Your task to perform on an android device: Open ESPN.com Image 0: 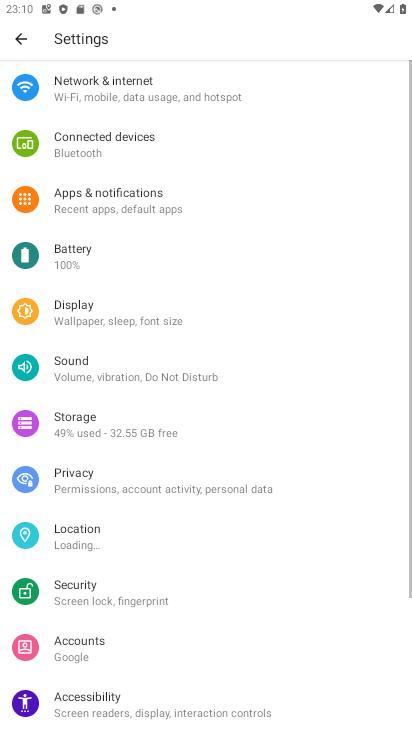
Step 0: press home button
Your task to perform on an android device: Open ESPN.com Image 1: 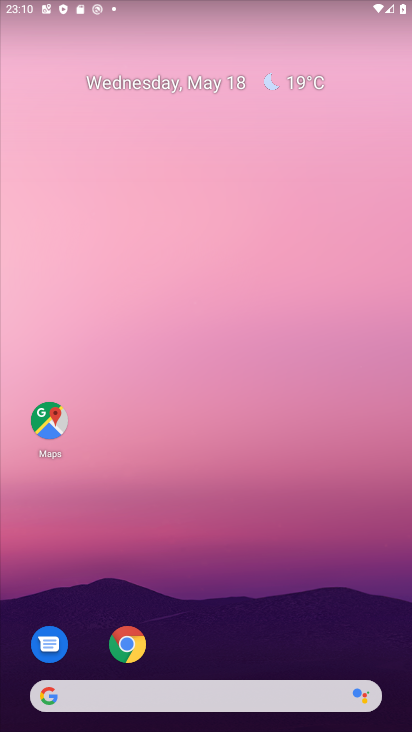
Step 1: drag from (335, 592) to (359, 107)
Your task to perform on an android device: Open ESPN.com Image 2: 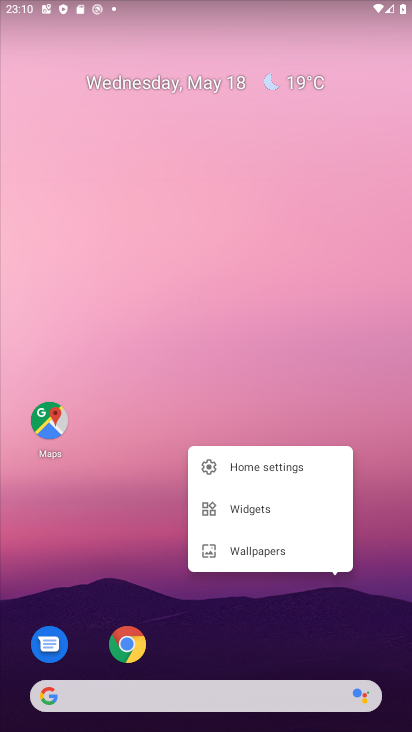
Step 2: click (354, 237)
Your task to perform on an android device: Open ESPN.com Image 3: 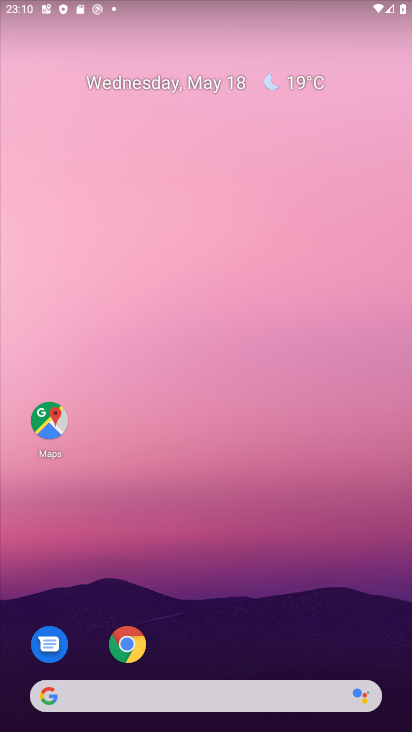
Step 3: click (131, 641)
Your task to perform on an android device: Open ESPN.com Image 4: 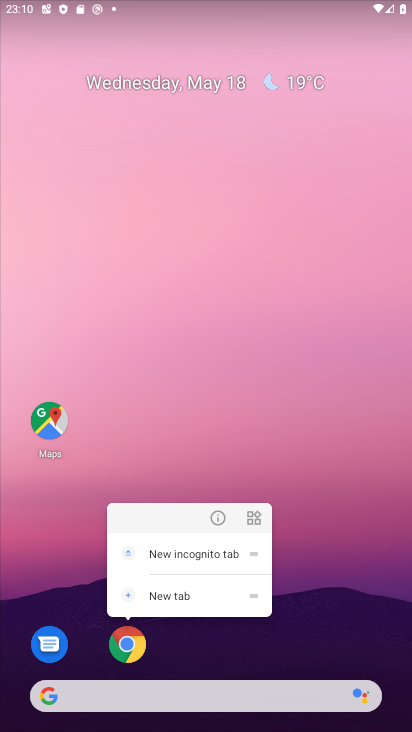
Step 4: click (129, 646)
Your task to perform on an android device: Open ESPN.com Image 5: 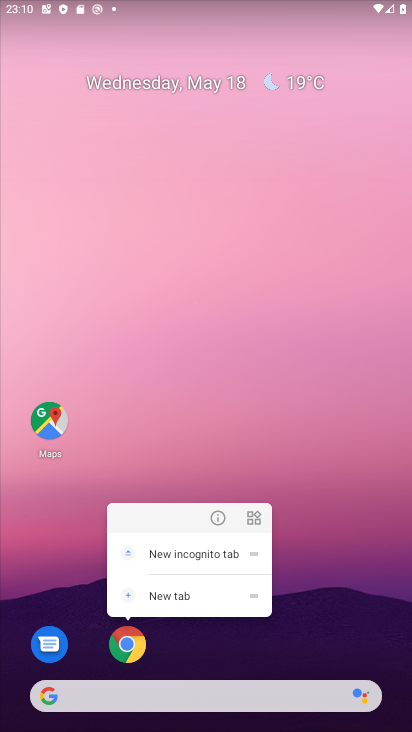
Step 5: click (346, 661)
Your task to perform on an android device: Open ESPN.com Image 6: 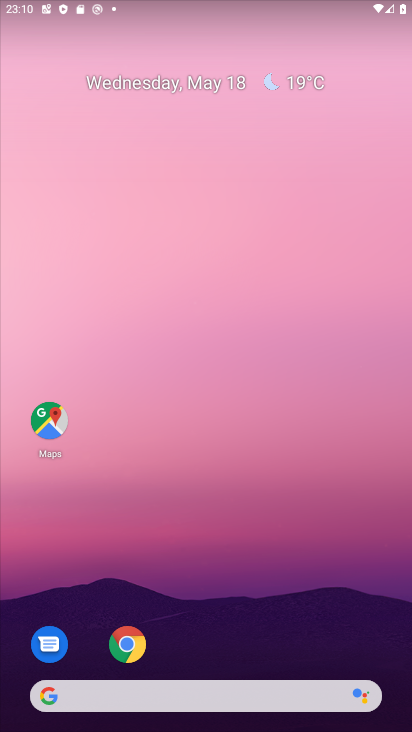
Step 6: drag from (344, 655) to (311, 201)
Your task to perform on an android device: Open ESPN.com Image 7: 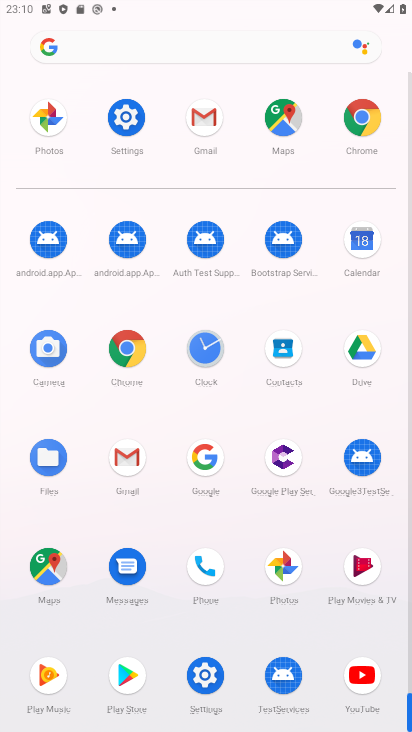
Step 7: click (133, 353)
Your task to perform on an android device: Open ESPN.com Image 8: 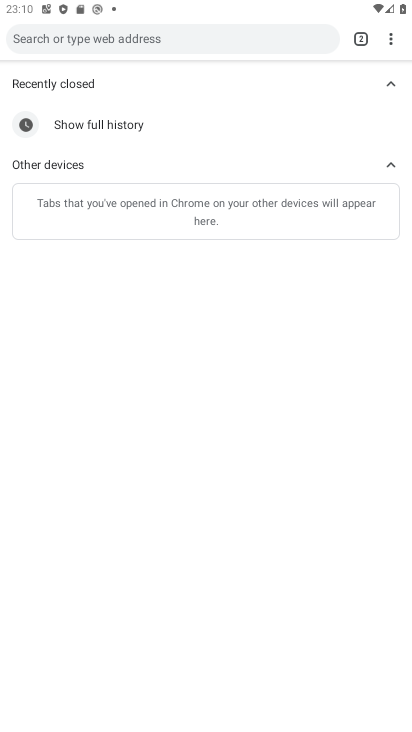
Step 8: click (252, 27)
Your task to perform on an android device: Open ESPN.com Image 9: 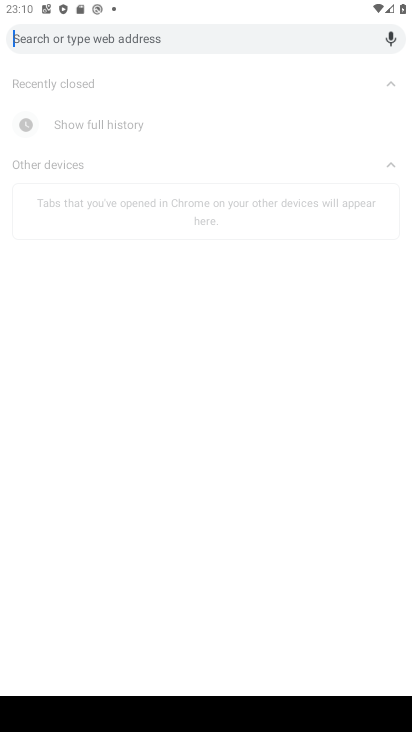
Step 9: type "espn.com"
Your task to perform on an android device: Open ESPN.com Image 10: 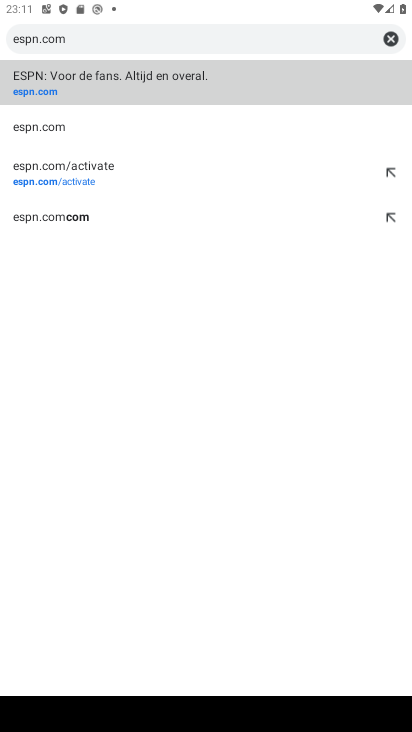
Step 10: click (39, 93)
Your task to perform on an android device: Open ESPN.com Image 11: 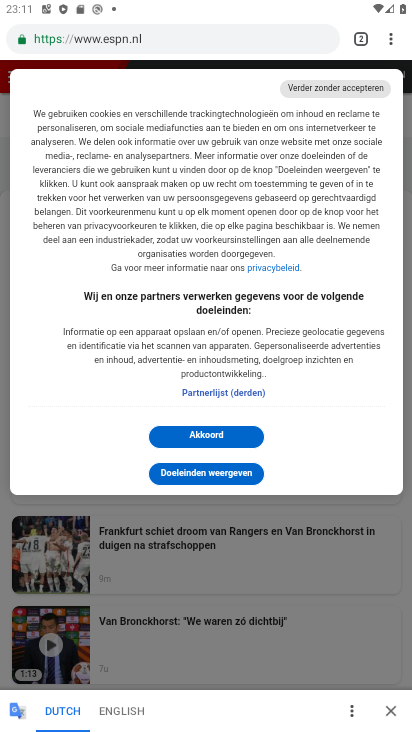
Step 11: task complete